Your task to perform on an android device: Go to display settings Image 0: 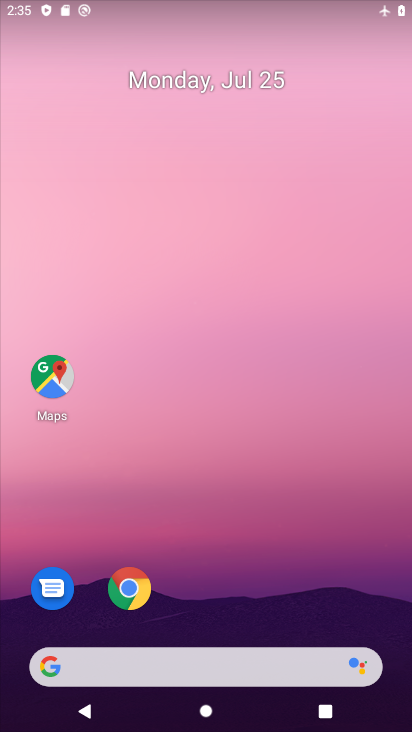
Step 0: drag from (228, 724) to (228, 347)
Your task to perform on an android device: Go to display settings Image 1: 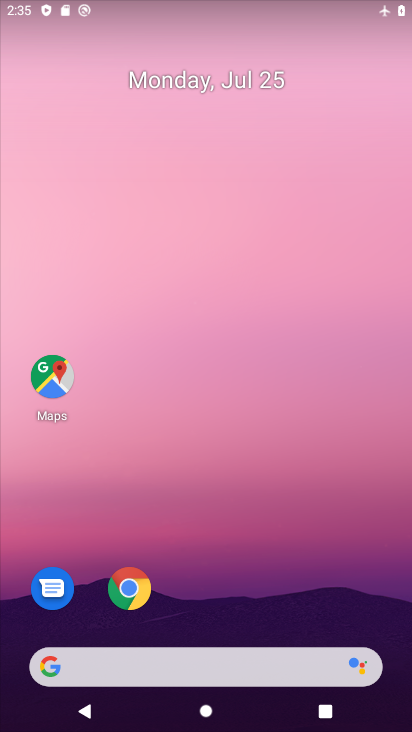
Step 1: drag from (237, 717) to (232, 64)
Your task to perform on an android device: Go to display settings Image 2: 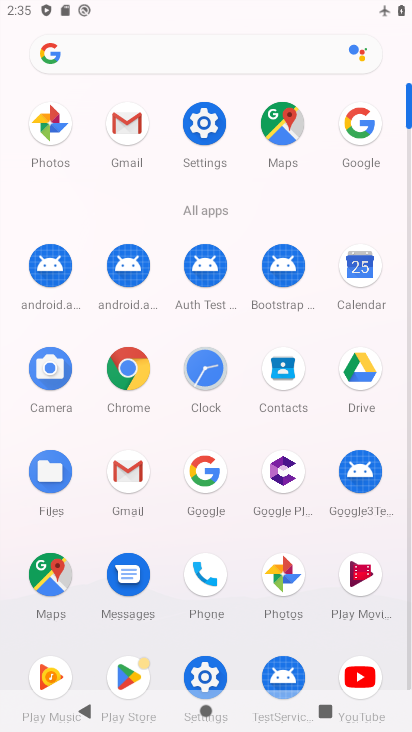
Step 2: click (202, 129)
Your task to perform on an android device: Go to display settings Image 3: 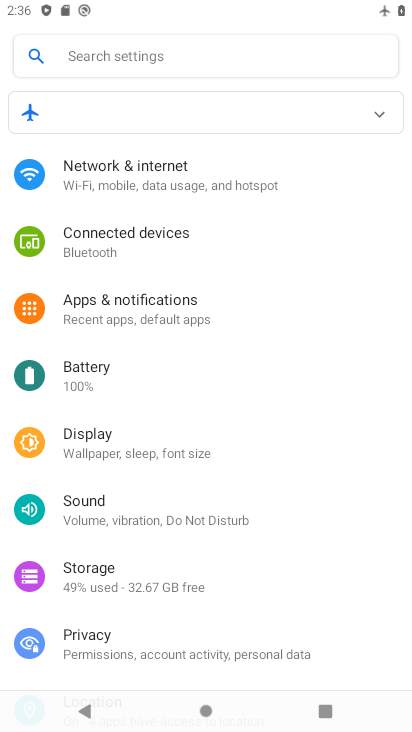
Step 3: click (91, 446)
Your task to perform on an android device: Go to display settings Image 4: 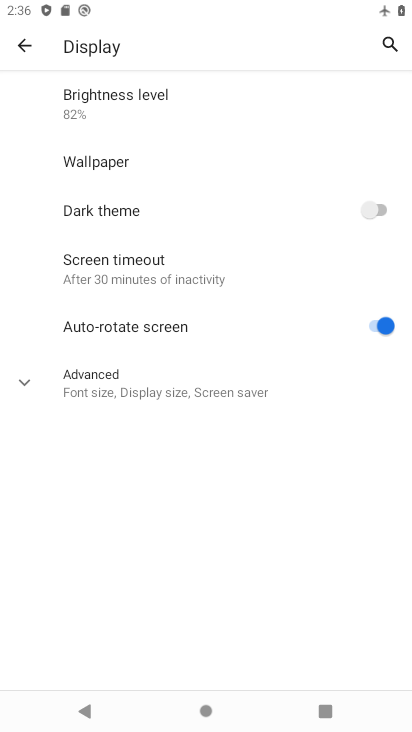
Step 4: task complete